Your task to perform on an android device: toggle notification dots Image 0: 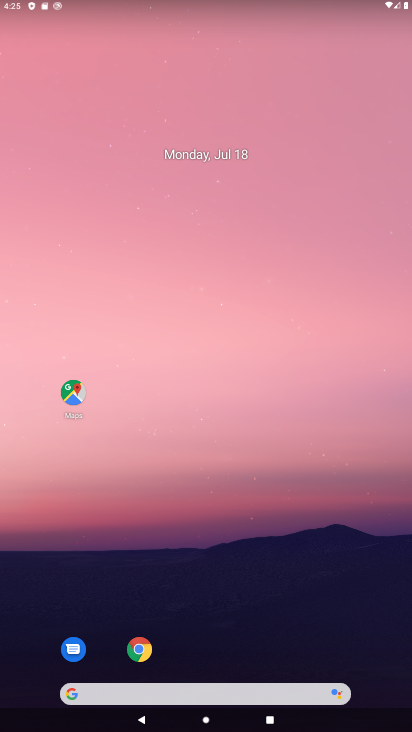
Step 0: drag from (195, 662) to (219, 260)
Your task to perform on an android device: toggle notification dots Image 1: 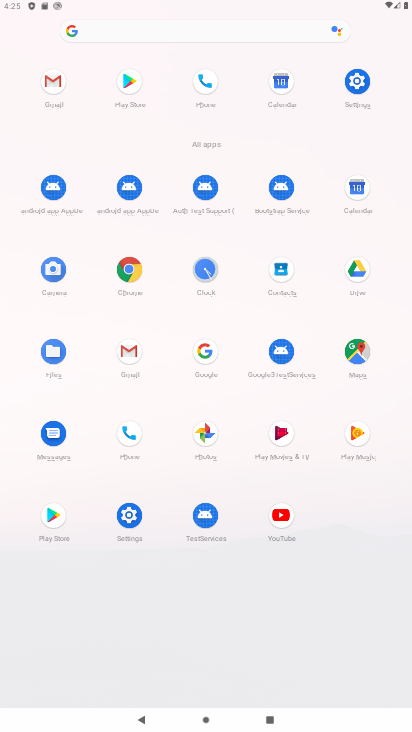
Step 1: click (130, 524)
Your task to perform on an android device: toggle notification dots Image 2: 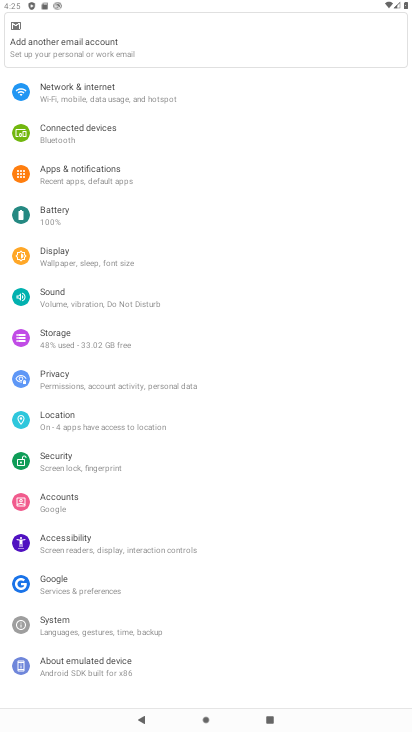
Step 2: click (95, 182)
Your task to perform on an android device: toggle notification dots Image 3: 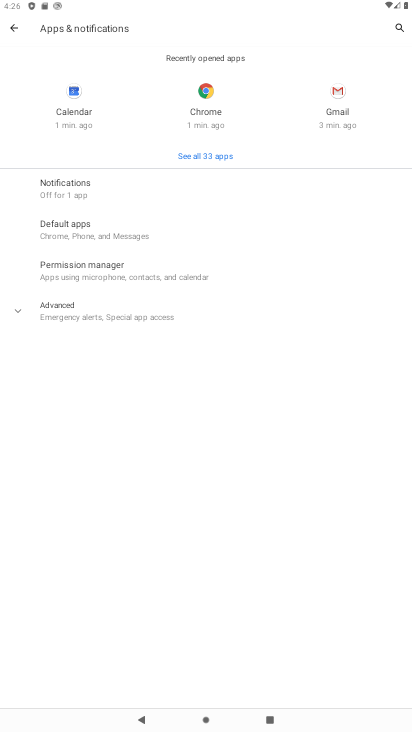
Step 3: click (101, 314)
Your task to perform on an android device: toggle notification dots Image 4: 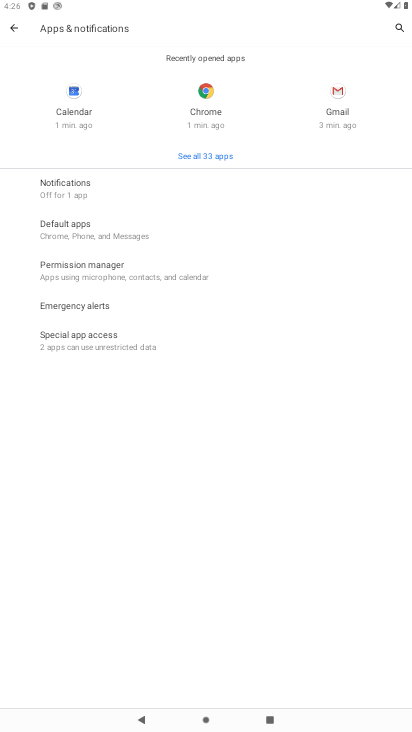
Step 4: click (91, 197)
Your task to perform on an android device: toggle notification dots Image 5: 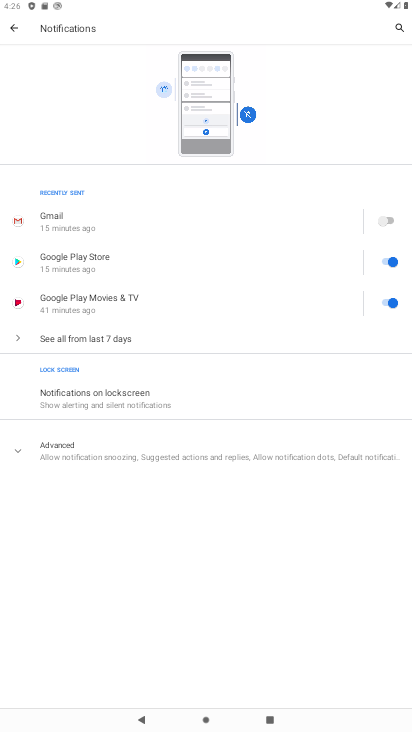
Step 5: click (86, 459)
Your task to perform on an android device: toggle notification dots Image 6: 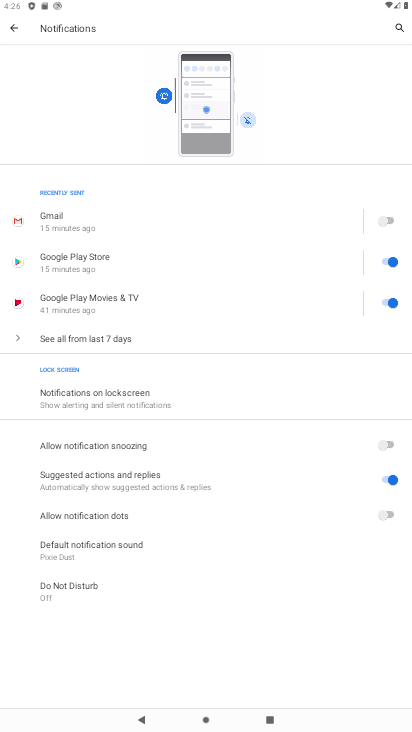
Step 6: click (387, 518)
Your task to perform on an android device: toggle notification dots Image 7: 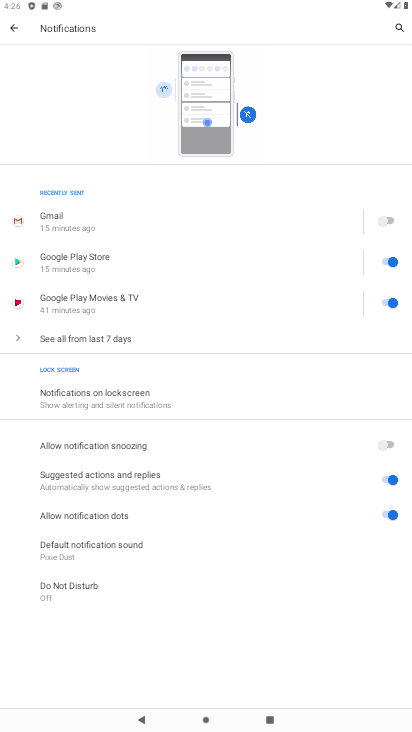
Step 7: task complete